Your task to perform on an android device: Show the shopping cart on amazon. Search for "jbl charge 4" on amazon, select the first entry, and add it to the cart. Image 0: 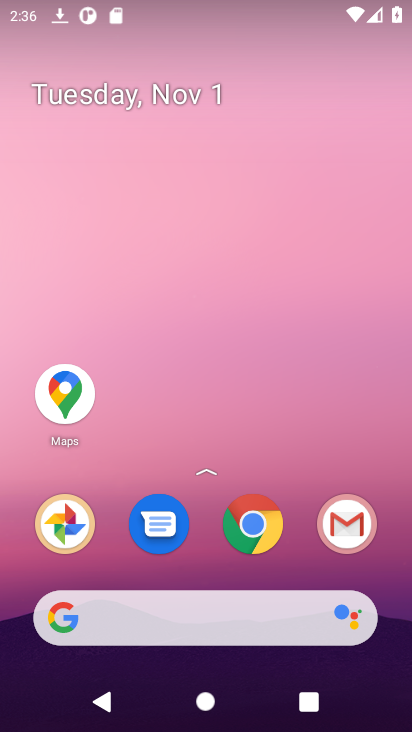
Step 0: click (250, 522)
Your task to perform on an android device: Show the shopping cart on amazon. Search for "jbl charge 4" on amazon, select the first entry, and add it to the cart. Image 1: 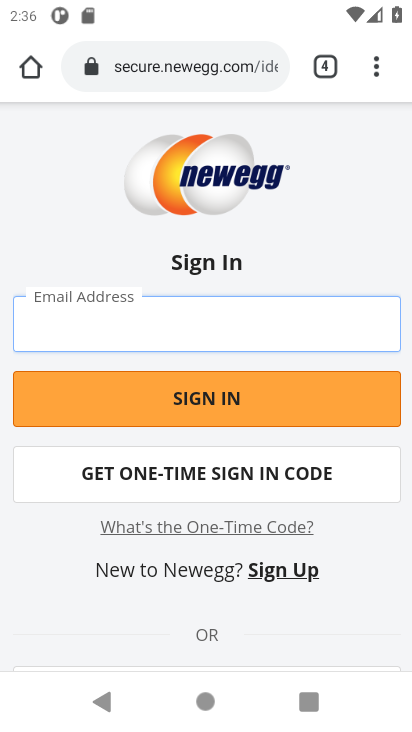
Step 1: click (215, 43)
Your task to perform on an android device: Show the shopping cart on amazon. Search for "jbl charge 4" on amazon, select the first entry, and add it to the cart. Image 2: 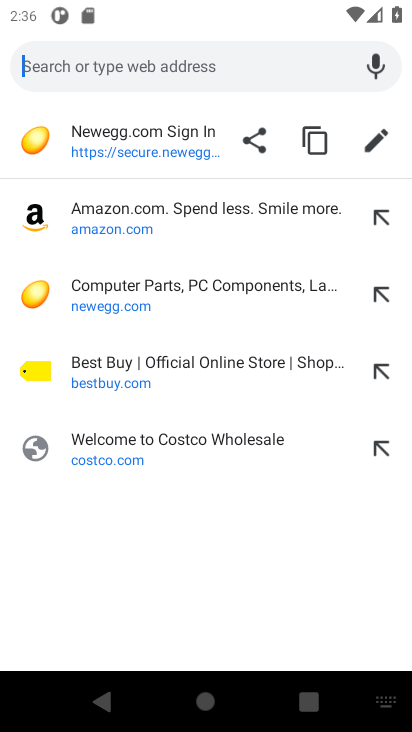
Step 2: click (107, 207)
Your task to perform on an android device: Show the shopping cart on amazon. Search for "jbl charge 4" on amazon, select the first entry, and add it to the cart. Image 3: 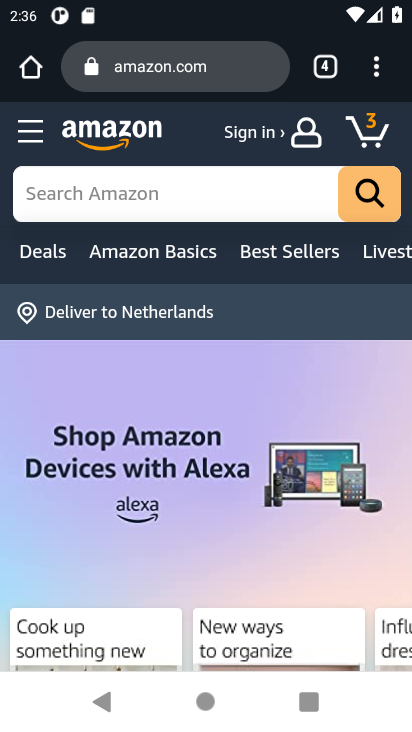
Step 3: click (374, 122)
Your task to perform on an android device: Show the shopping cart on amazon. Search for "jbl charge 4" on amazon, select the first entry, and add it to the cart. Image 4: 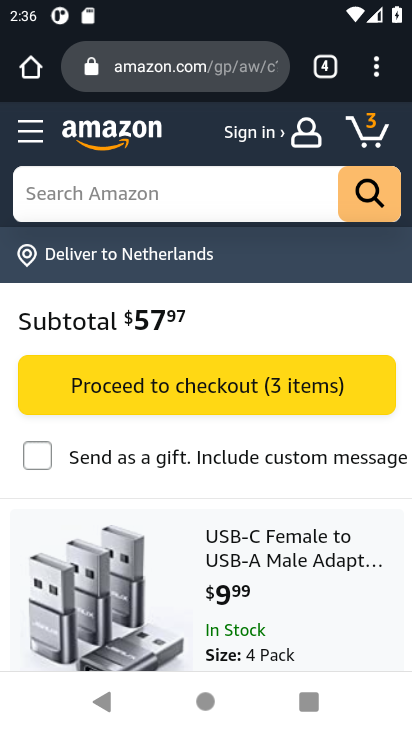
Step 4: drag from (238, 574) to (225, 308)
Your task to perform on an android device: Show the shopping cart on amazon. Search for "jbl charge 4" on amazon, select the first entry, and add it to the cart. Image 5: 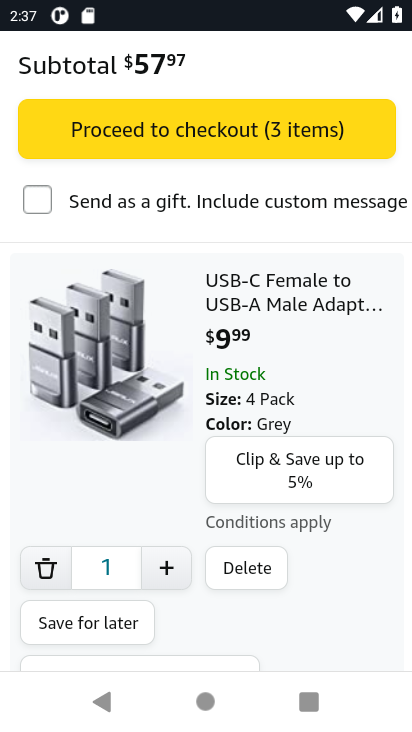
Step 5: drag from (225, 308) to (215, 538)
Your task to perform on an android device: Show the shopping cart on amazon. Search for "jbl charge 4" on amazon, select the first entry, and add it to the cart. Image 6: 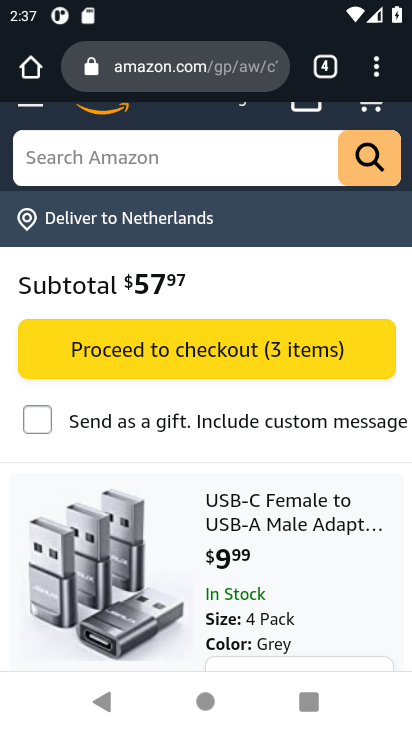
Step 6: click (126, 148)
Your task to perform on an android device: Show the shopping cart on amazon. Search for "jbl charge 4" on amazon, select the first entry, and add it to the cart. Image 7: 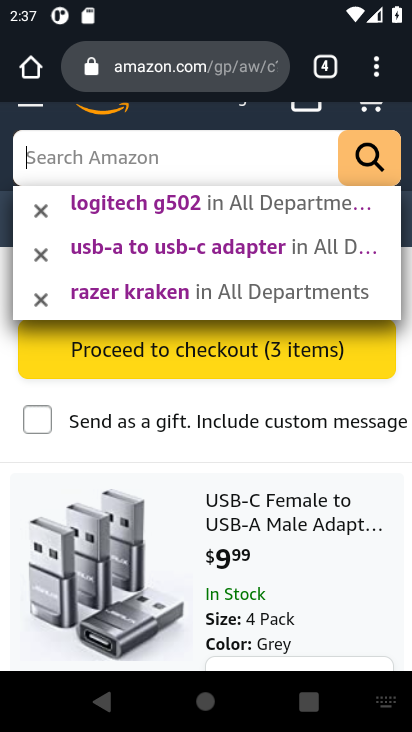
Step 7: type "jbl charge 4"
Your task to perform on an android device: Show the shopping cart on amazon. Search for "jbl charge 4" on amazon, select the first entry, and add it to the cart. Image 8: 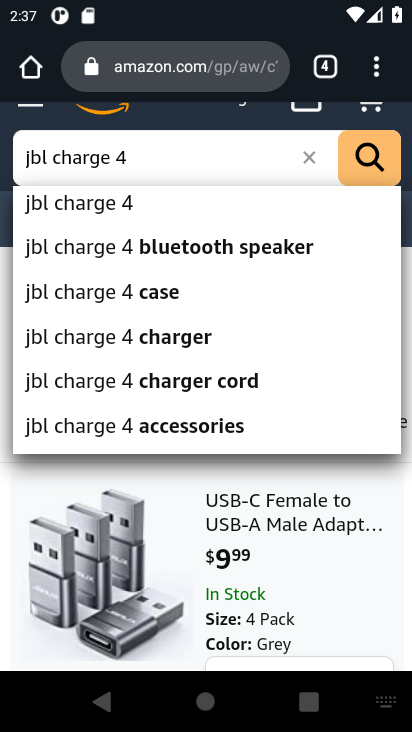
Step 8: click (55, 201)
Your task to perform on an android device: Show the shopping cart on amazon. Search for "jbl charge 4" on amazon, select the first entry, and add it to the cart. Image 9: 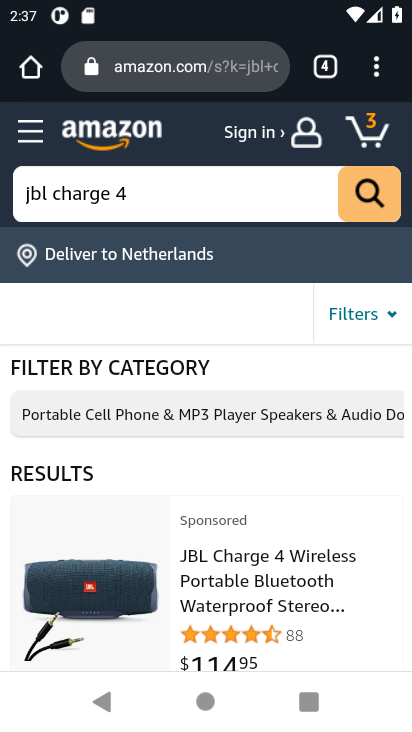
Step 9: drag from (269, 554) to (261, 337)
Your task to perform on an android device: Show the shopping cart on amazon. Search for "jbl charge 4" on amazon, select the first entry, and add it to the cart. Image 10: 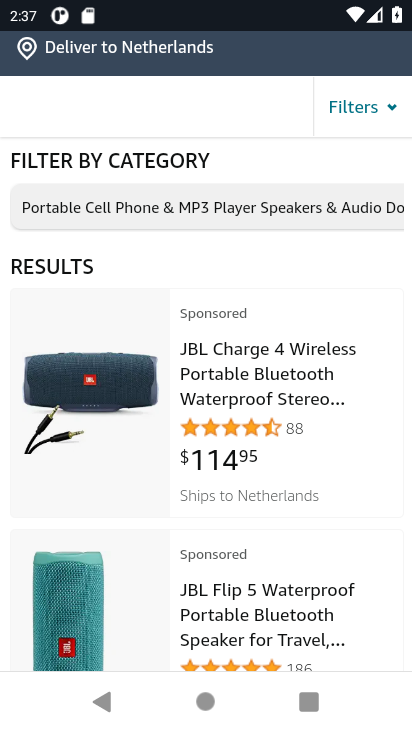
Step 10: click (211, 367)
Your task to perform on an android device: Show the shopping cart on amazon. Search for "jbl charge 4" on amazon, select the first entry, and add it to the cart. Image 11: 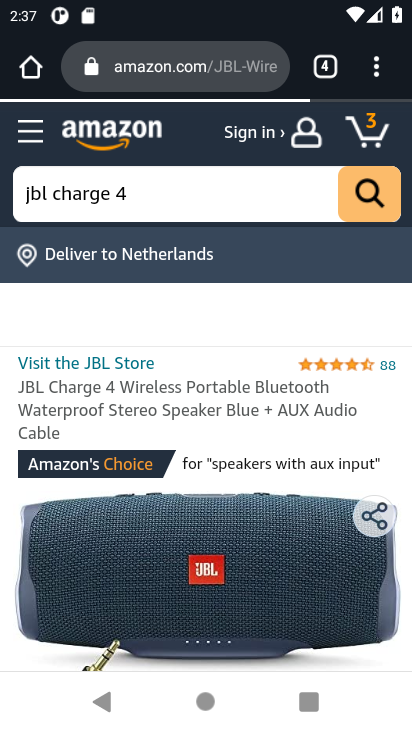
Step 11: drag from (262, 611) to (237, 305)
Your task to perform on an android device: Show the shopping cart on amazon. Search for "jbl charge 4" on amazon, select the first entry, and add it to the cart. Image 12: 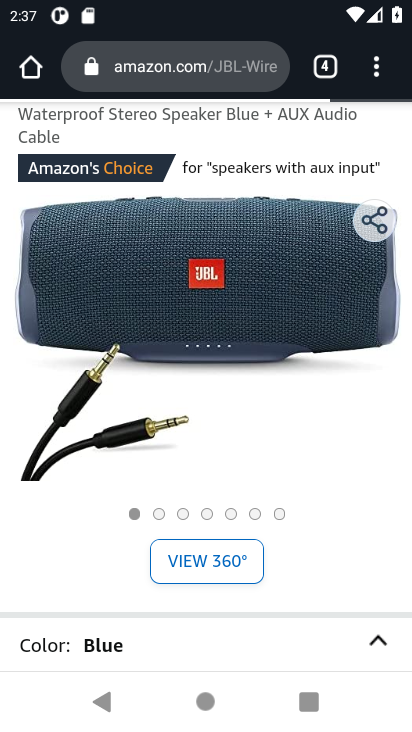
Step 12: drag from (301, 613) to (284, 281)
Your task to perform on an android device: Show the shopping cart on amazon. Search for "jbl charge 4" on amazon, select the first entry, and add it to the cart. Image 13: 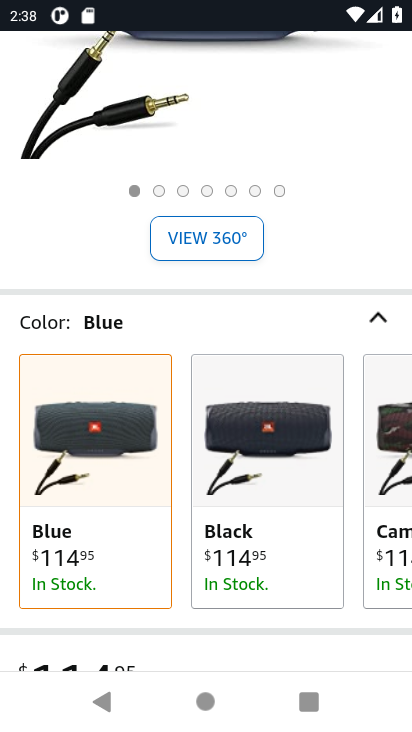
Step 13: drag from (265, 660) to (243, 265)
Your task to perform on an android device: Show the shopping cart on amazon. Search for "jbl charge 4" on amazon, select the first entry, and add it to the cart. Image 14: 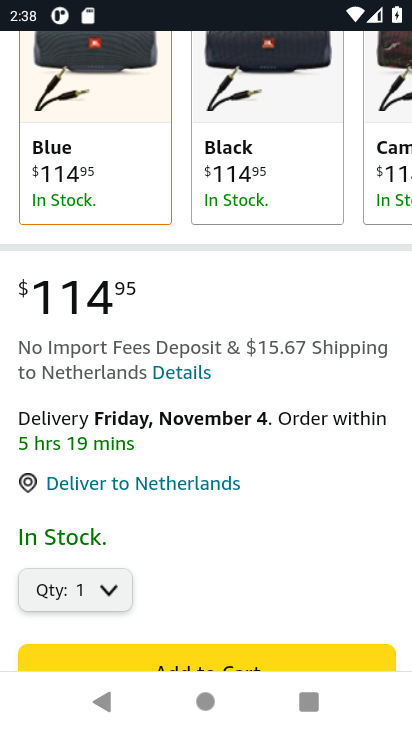
Step 14: drag from (254, 623) to (261, 340)
Your task to perform on an android device: Show the shopping cart on amazon. Search for "jbl charge 4" on amazon, select the first entry, and add it to the cart. Image 15: 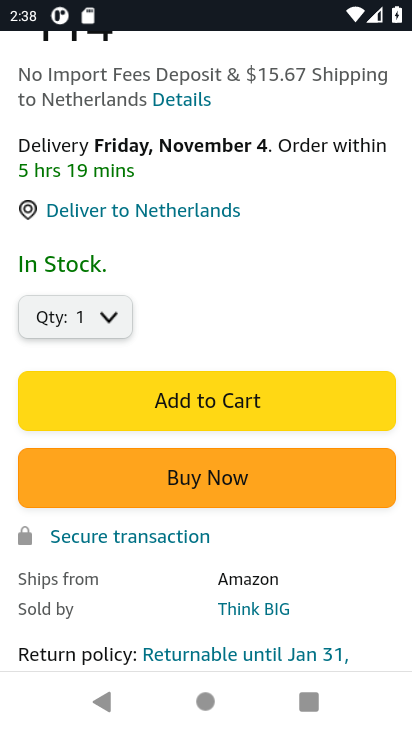
Step 15: click (184, 403)
Your task to perform on an android device: Show the shopping cart on amazon. Search for "jbl charge 4" on amazon, select the first entry, and add it to the cart. Image 16: 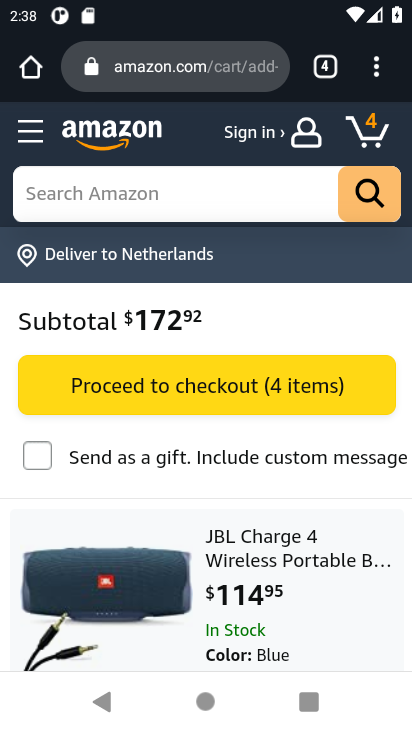
Step 16: task complete